Your task to perform on an android device: Add apple airpods to the cart on bestbuy Image 0: 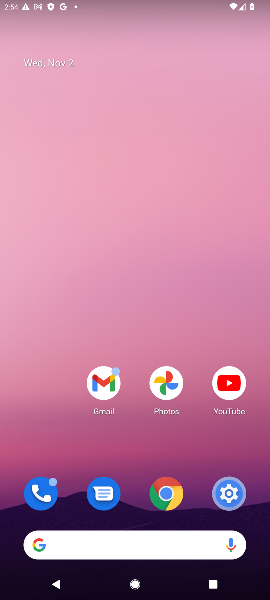
Step 0: drag from (122, 511) to (123, 92)
Your task to perform on an android device: Add apple airpods to the cart on bestbuy Image 1: 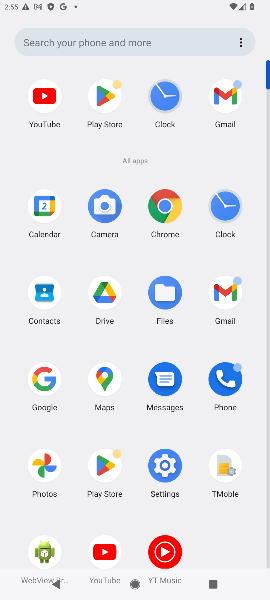
Step 1: click (39, 375)
Your task to perform on an android device: Add apple airpods to the cart on bestbuy Image 2: 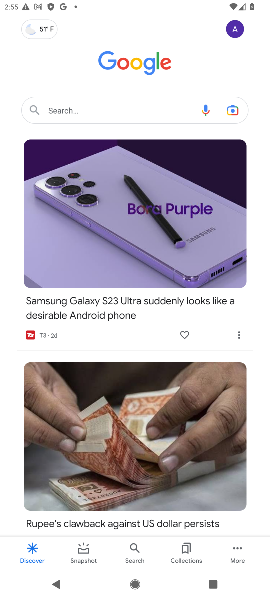
Step 2: click (86, 104)
Your task to perform on an android device: Add apple airpods to the cart on bestbuy Image 3: 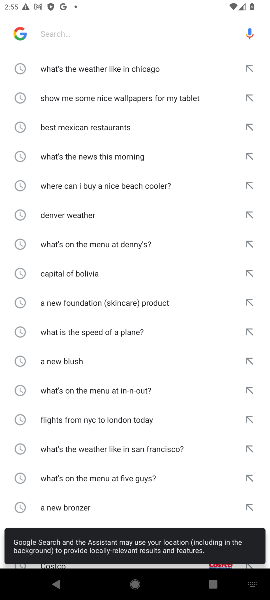
Step 3: type "bestbuy "
Your task to perform on an android device: Add apple airpods to the cart on bestbuy Image 4: 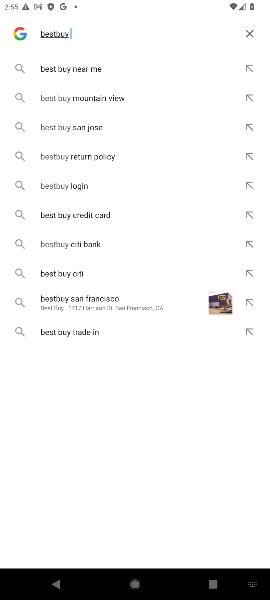
Step 4: click (65, 65)
Your task to perform on an android device: Add apple airpods to the cart on bestbuy Image 5: 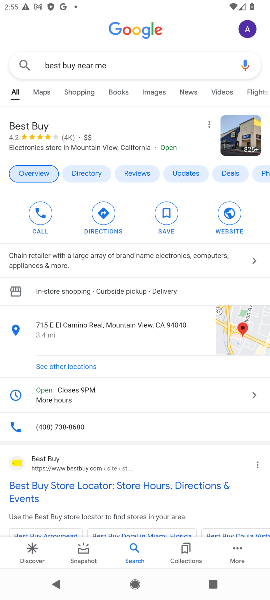
Step 5: click (10, 460)
Your task to perform on an android device: Add apple airpods to the cart on bestbuy Image 6: 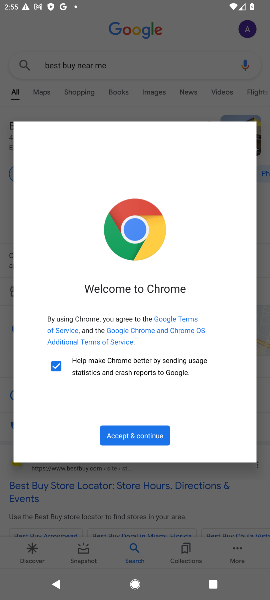
Step 6: click (137, 437)
Your task to perform on an android device: Add apple airpods to the cart on bestbuy Image 7: 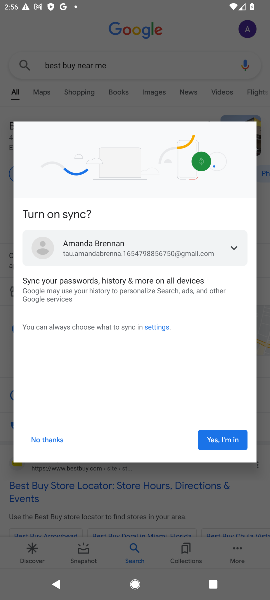
Step 7: click (40, 439)
Your task to perform on an android device: Add apple airpods to the cart on bestbuy Image 8: 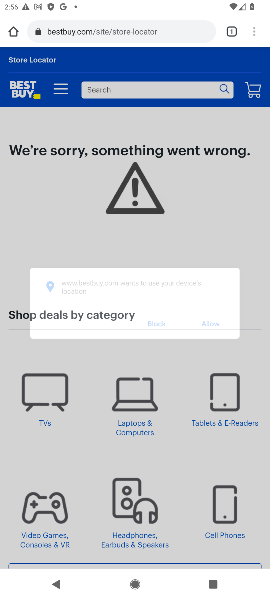
Step 8: click (124, 86)
Your task to perform on an android device: Add apple airpods to the cart on bestbuy Image 9: 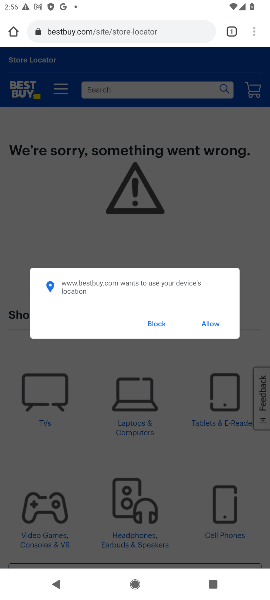
Step 9: click (209, 329)
Your task to perform on an android device: Add apple airpods to the cart on bestbuy Image 10: 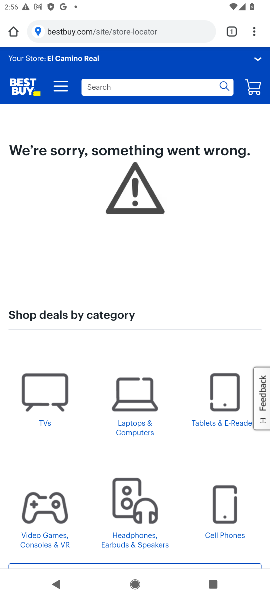
Step 10: click (123, 89)
Your task to perform on an android device: Add apple airpods to the cart on bestbuy Image 11: 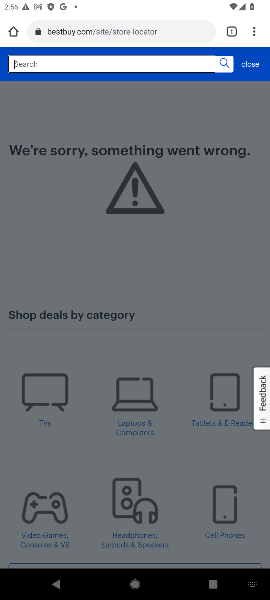
Step 11: type "airpods "
Your task to perform on an android device: Add apple airpods to the cart on bestbuy Image 12: 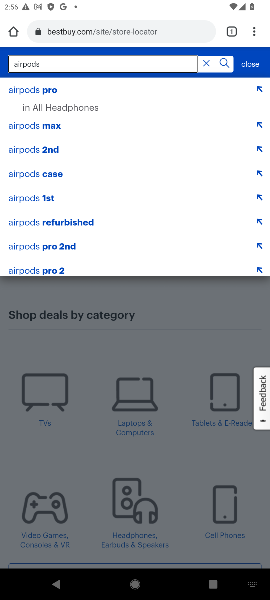
Step 12: click (46, 95)
Your task to perform on an android device: Add apple airpods to the cart on bestbuy Image 13: 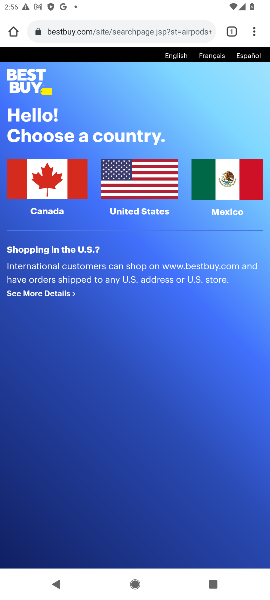
Step 13: click (142, 166)
Your task to perform on an android device: Add apple airpods to the cart on bestbuy Image 14: 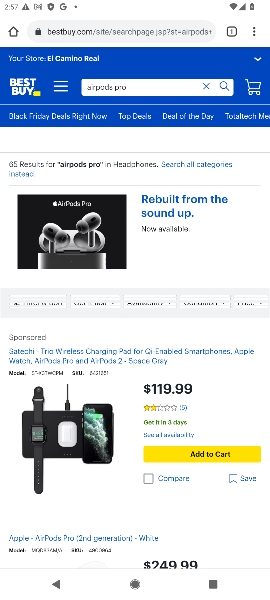
Step 14: click (117, 212)
Your task to perform on an android device: Add apple airpods to the cart on bestbuy Image 15: 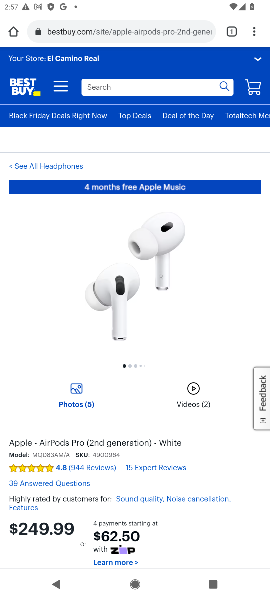
Step 15: drag from (144, 484) to (175, 270)
Your task to perform on an android device: Add apple airpods to the cart on bestbuy Image 16: 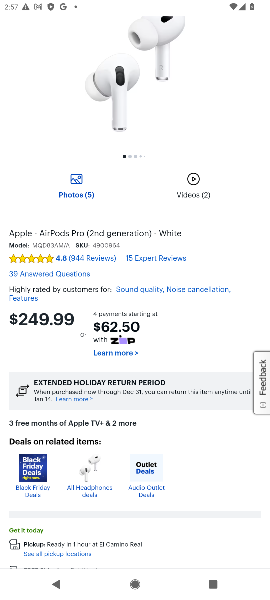
Step 16: drag from (161, 474) to (175, 196)
Your task to perform on an android device: Add apple airpods to the cart on bestbuy Image 17: 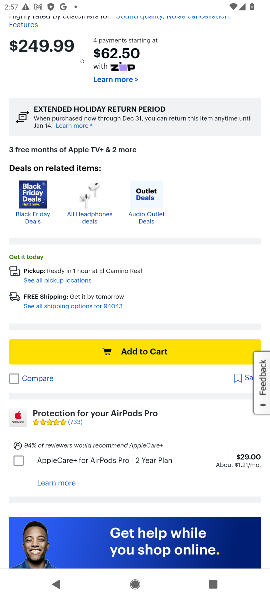
Step 17: click (145, 350)
Your task to perform on an android device: Add apple airpods to the cart on bestbuy Image 18: 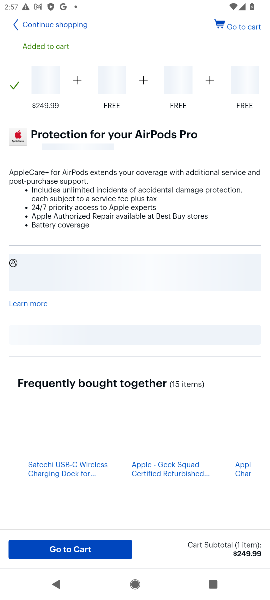
Step 18: click (81, 550)
Your task to perform on an android device: Add apple airpods to the cart on bestbuy Image 19: 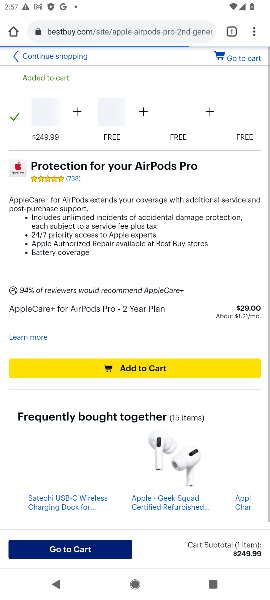
Step 19: task complete